Your task to perform on an android device: open a new tab in the chrome app Image 0: 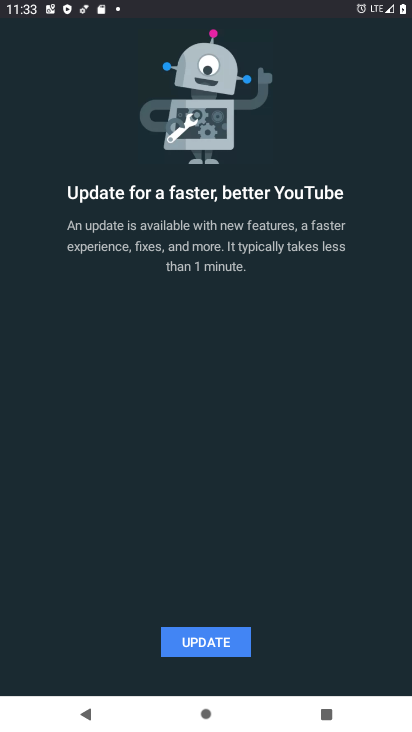
Step 0: press back button
Your task to perform on an android device: open a new tab in the chrome app Image 1: 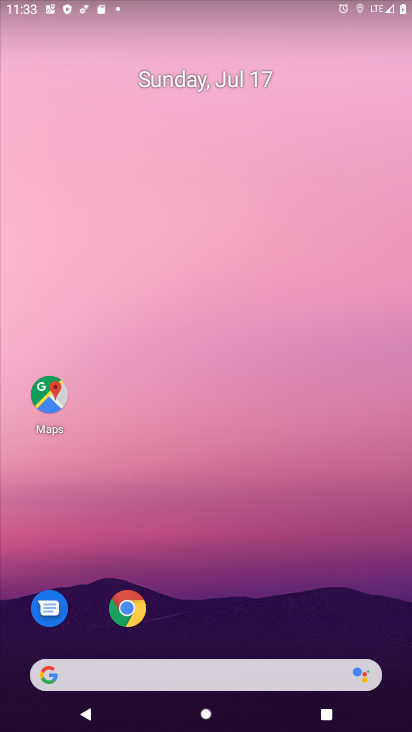
Step 1: drag from (185, 647) to (173, 58)
Your task to perform on an android device: open a new tab in the chrome app Image 2: 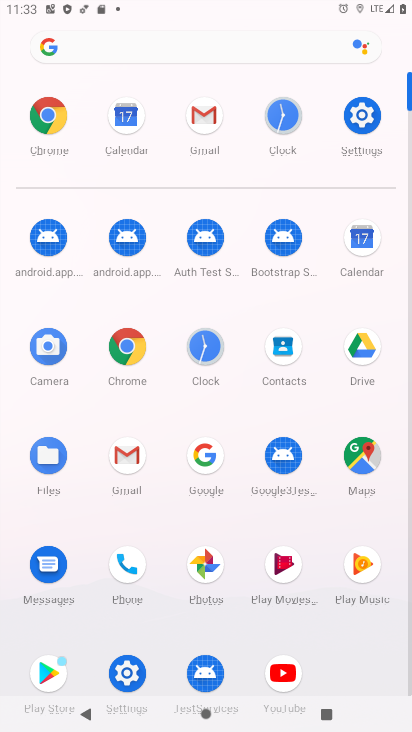
Step 2: click (133, 341)
Your task to perform on an android device: open a new tab in the chrome app Image 3: 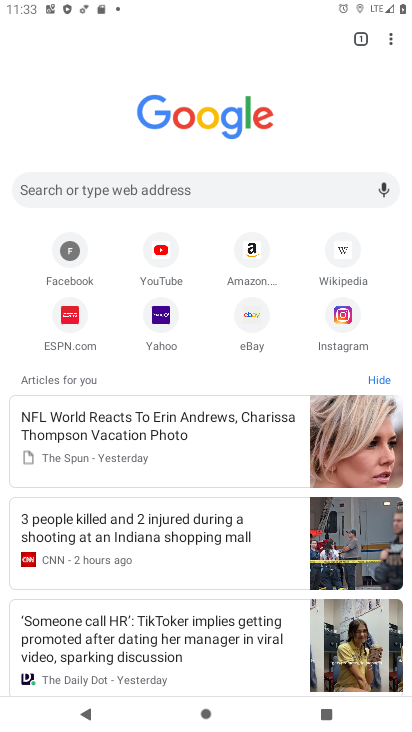
Step 3: click (360, 37)
Your task to perform on an android device: open a new tab in the chrome app Image 4: 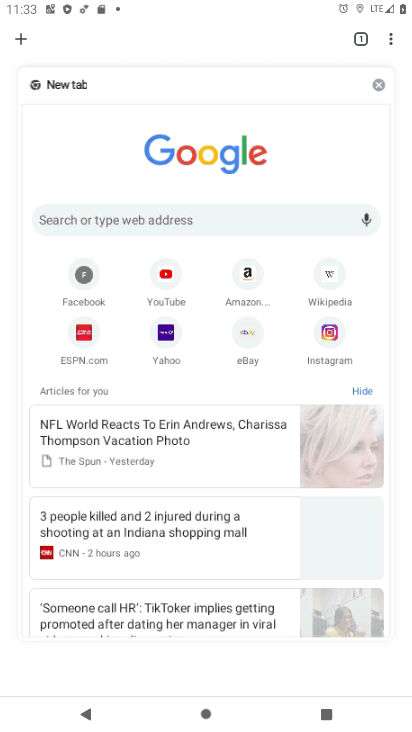
Step 4: click (25, 39)
Your task to perform on an android device: open a new tab in the chrome app Image 5: 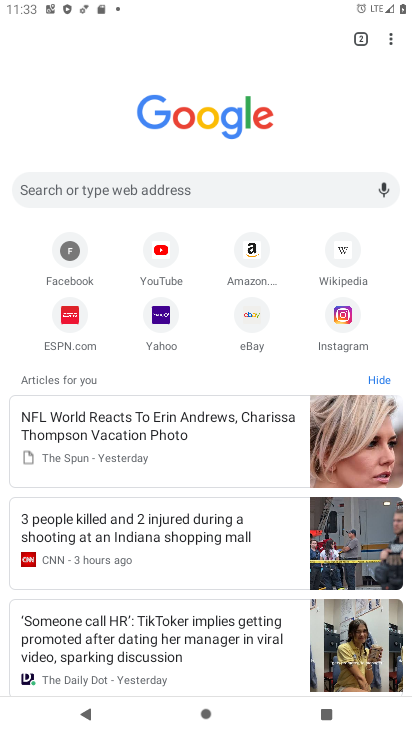
Step 5: task complete